Your task to perform on an android device: Open privacy settings Image 0: 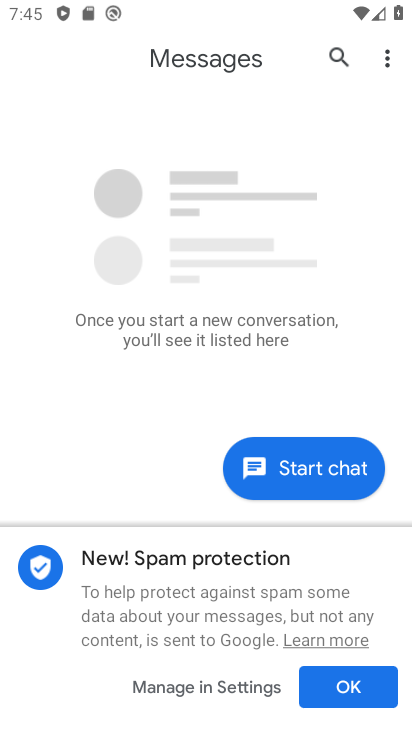
Step 0: press home button
Your task to perform on an android device: Open privacy settings Image 1: 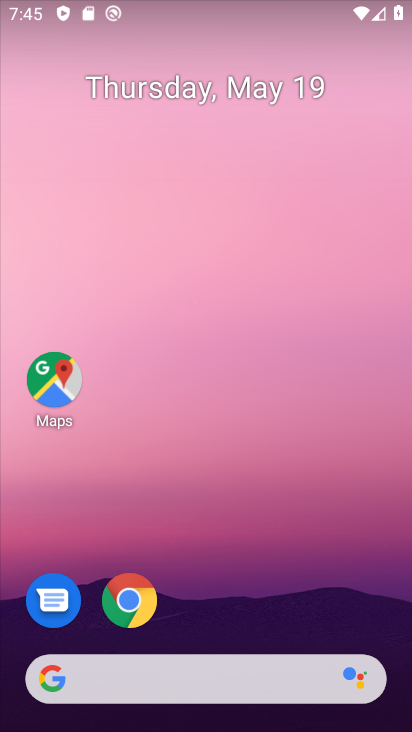
Step 1: drag from (227, 651) to (252, 2)
Your task to perform on an android device: Open privacy settings Image 2: 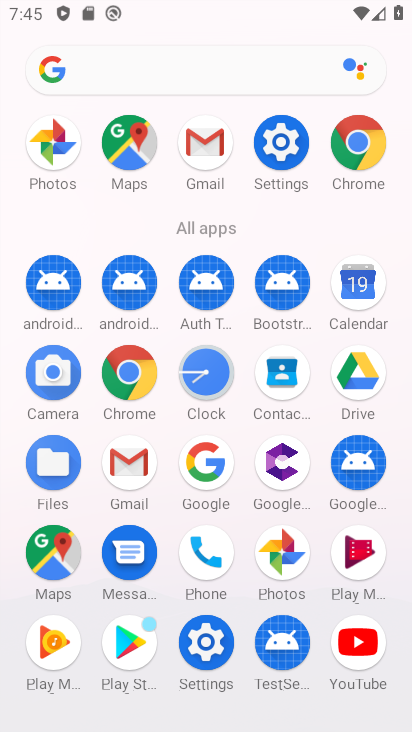
Step 2: click (284, 145)
Your task to perform on an android device: Open privacy settings Image 3: 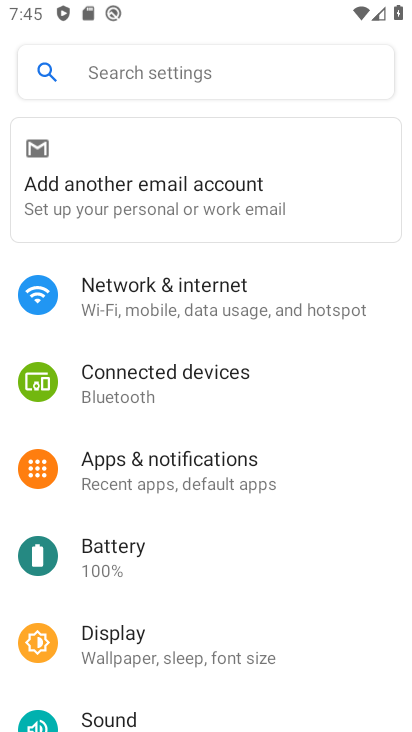
Step 3: drag from (366, 641) to (372, 369)
Your task to perform on an android device: Open privacy settings Image 4: 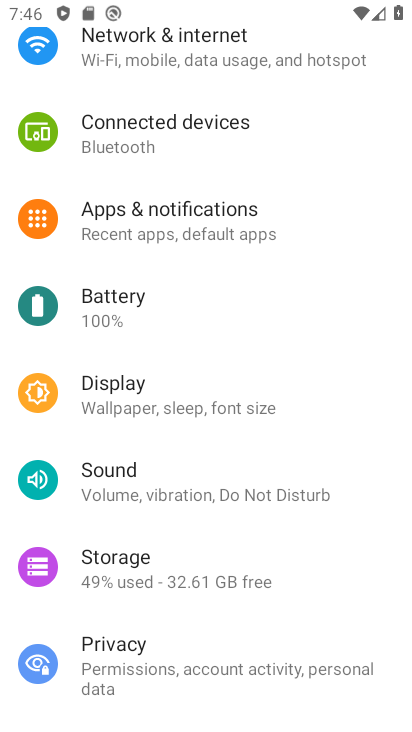
Step 4: click (94, 654)
Your task to perform on an android device: Open privacy settings Image 5: 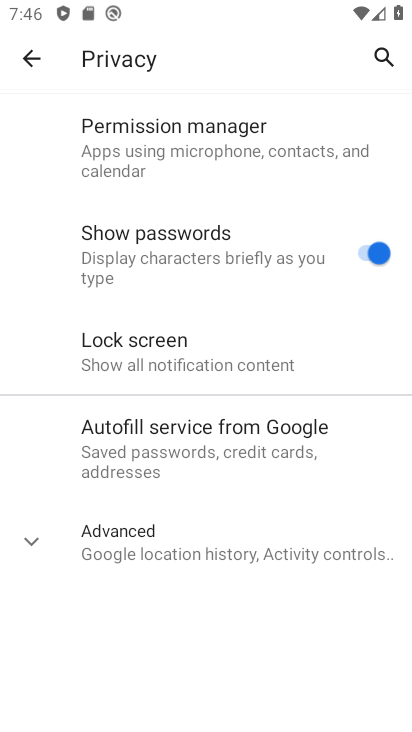
Step 5: task complete